Your task to perform on an android device: stop showing notifications on the lock screen Image 0: 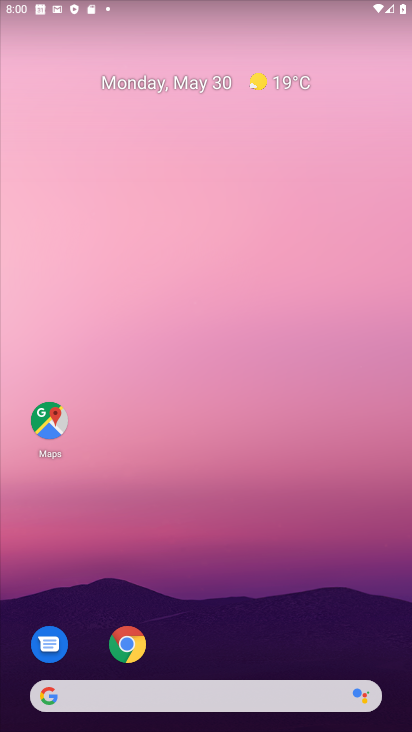
Step 0: drag from (185, 646) to (280, 94)
Your task to perform on an android device: stop showing notifications on the lock screen Image 1: 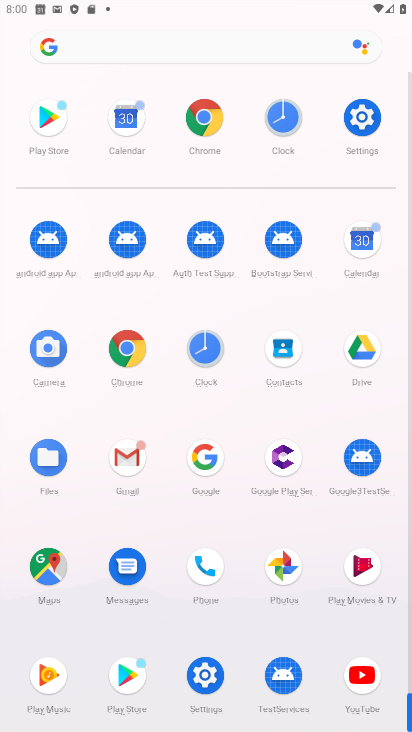
Step 1: click (370, 119)
Your task to perform on an android device: stop showing notifications on the lock screen Image 2: 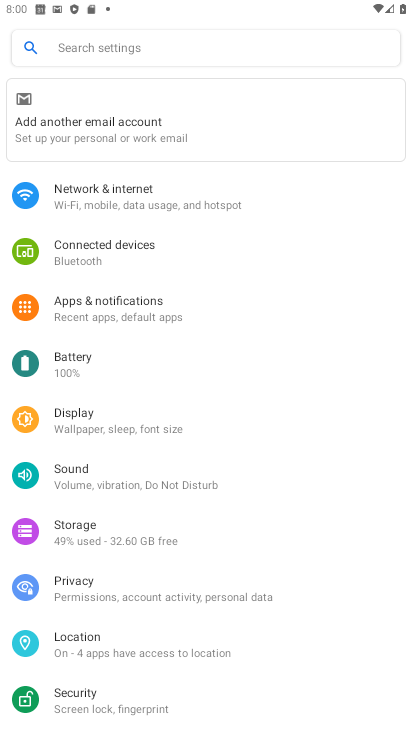
Step 2: click (97, 300)
Your task to perform on an android device: stop showing notifications on the lock screen Image 3: 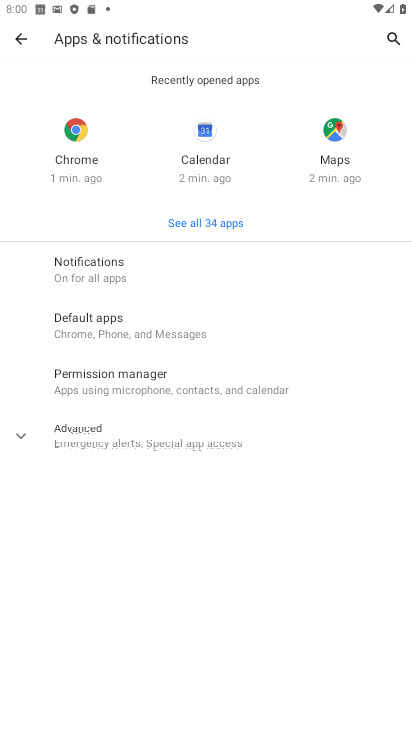
Step 3: click (135, 276)
Your task to perform on an android device: stop showing notifications on the lock screen Image 4: 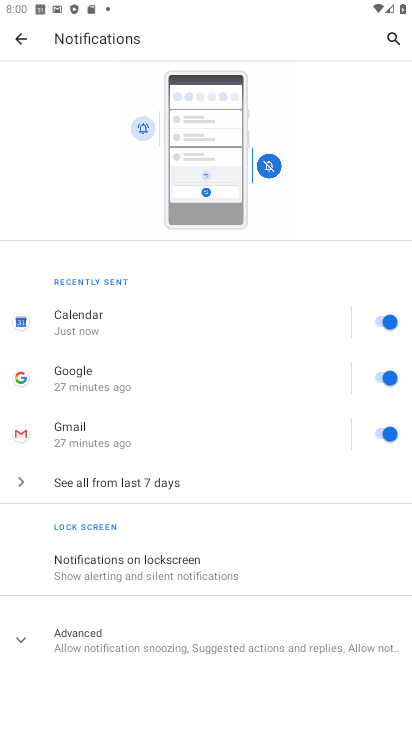
Step 4: click (143, 584)
Your task to perform on an android device: stop showing notifications on the lock screen Image 5: 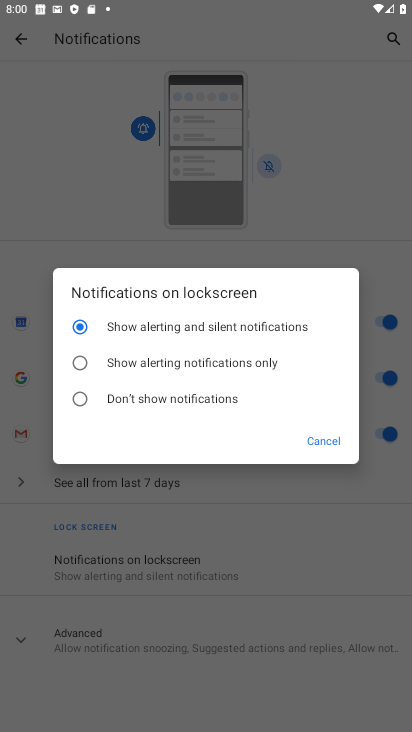
Step 5: click (134, 402)
Your task to perform on an android device: stop showing notifications on the lock screen Image 6: 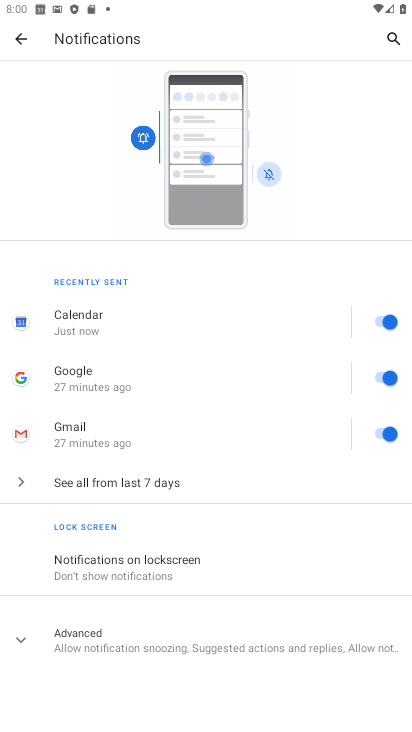
Step 6: task complete